Your task to perform on an android device: What's the weather like in Los Angeles? Image 0: 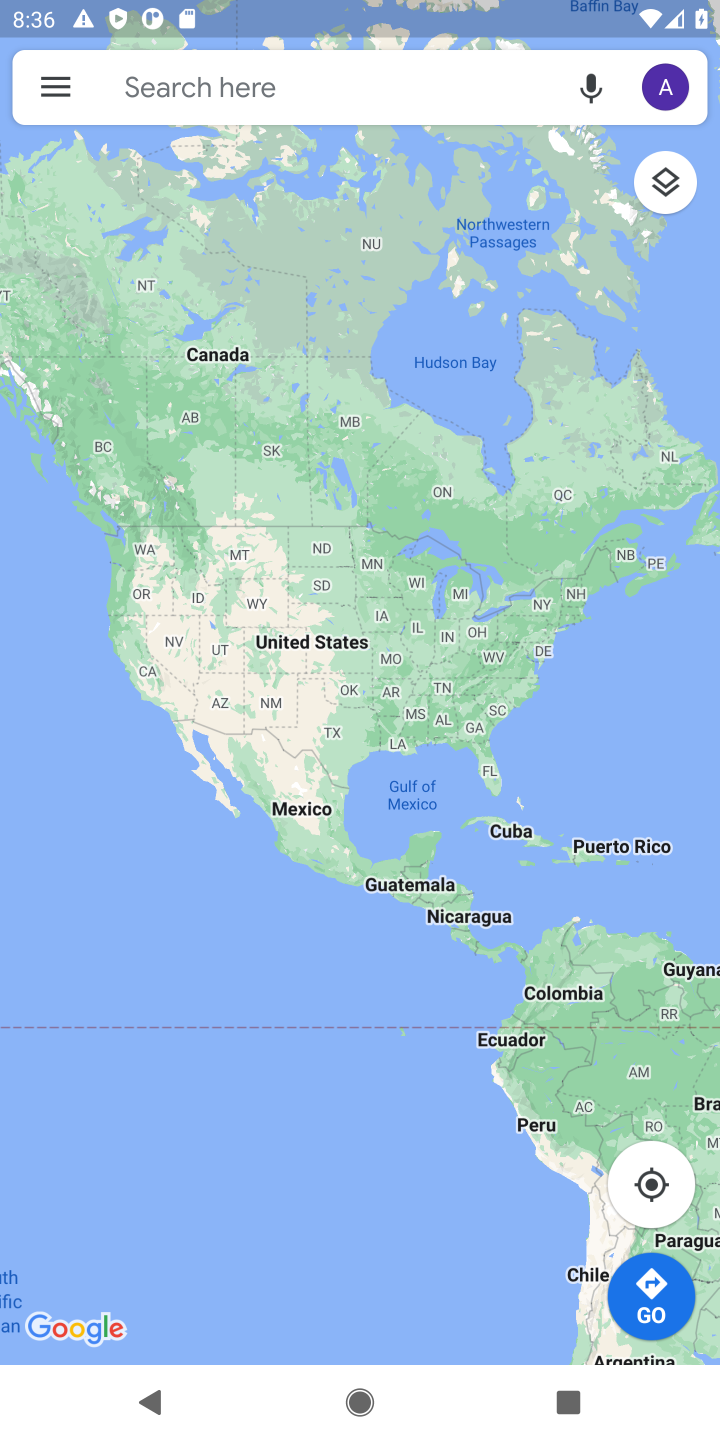
Step 0: press home button
Your task to perform on an android device: What's the weather like in Los Angeles? Image 1: 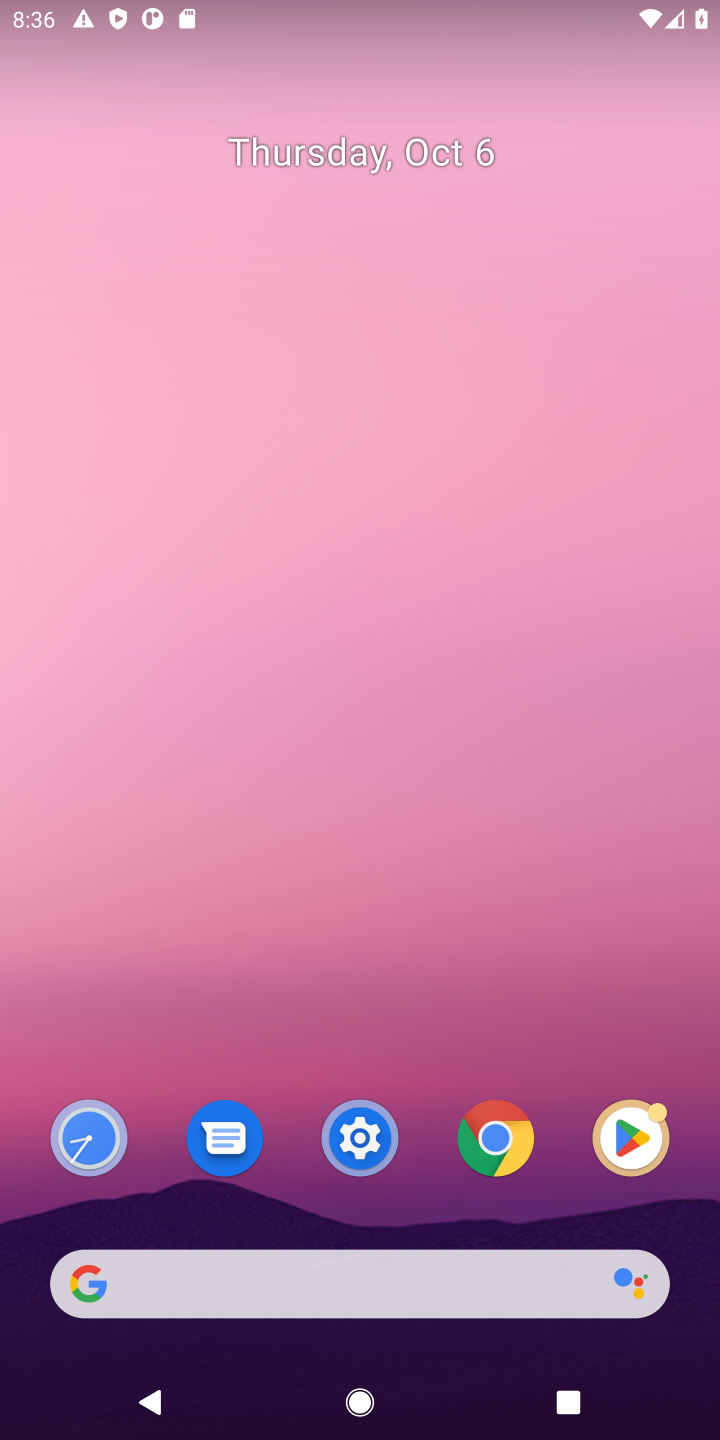
Step 1: click (371, 1265)
Your task to perform on an android device: What's the weather like in Los Angeles? Image 2: 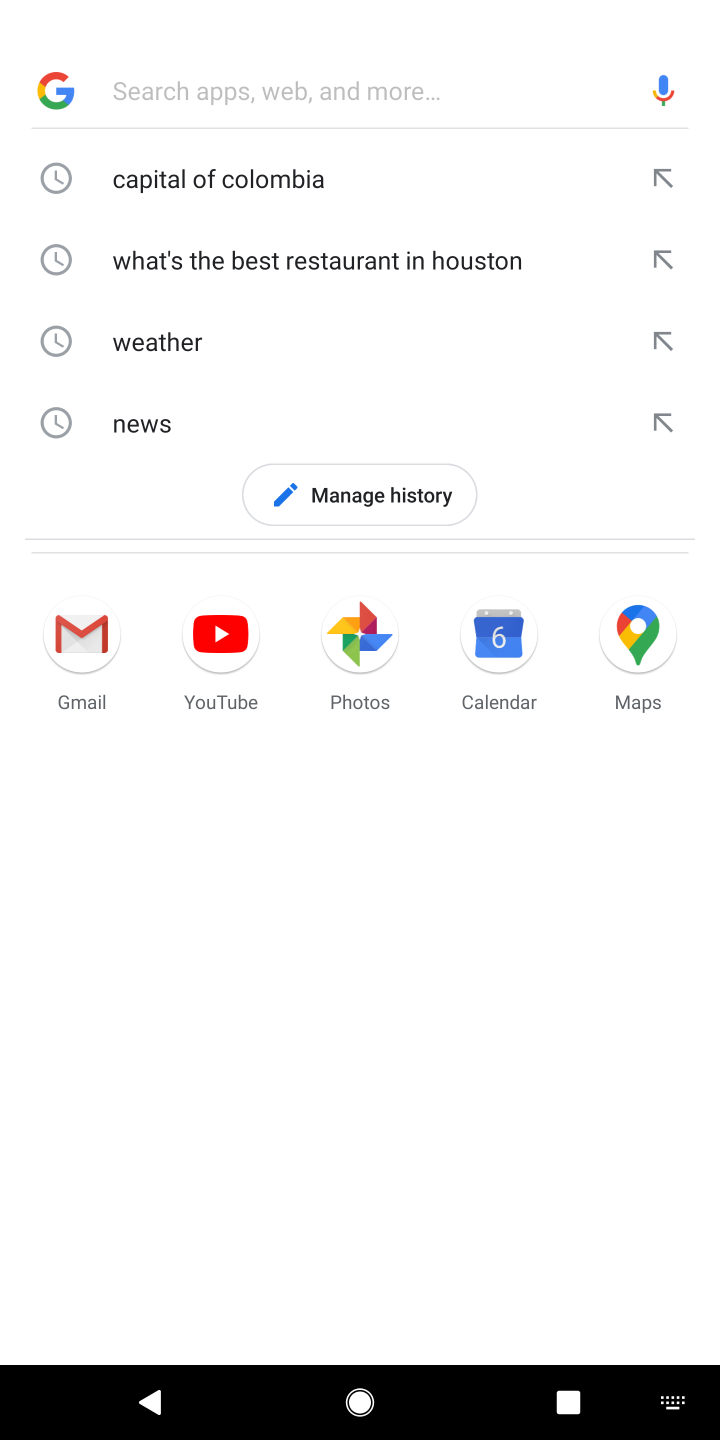
Step 2: type "What's the weather like in Los Angeles?"
Your task to perform on an android device: What's the weather like in Los Angeles? Image 3: 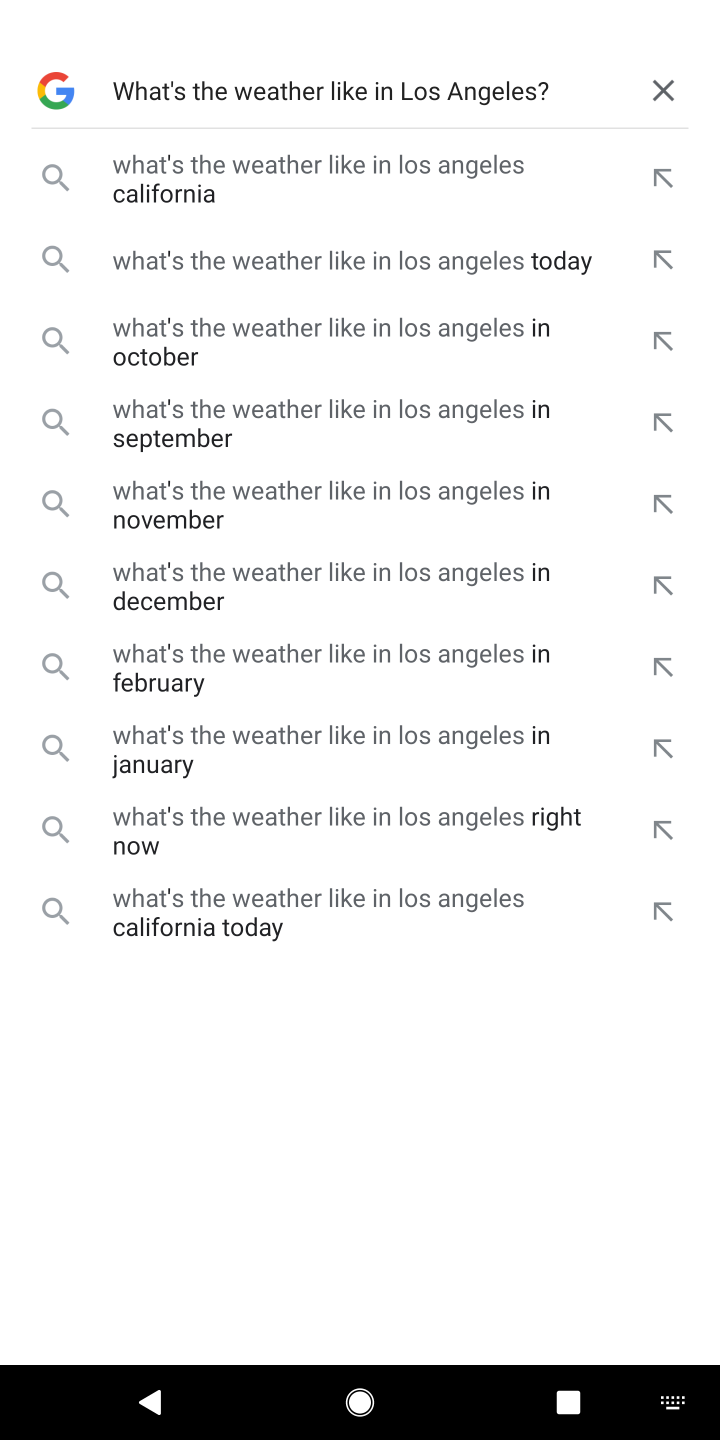
Step 3: click (281, 931)
Your task to perform on an android device: What's the weather like in Los Angeles? Image 4: 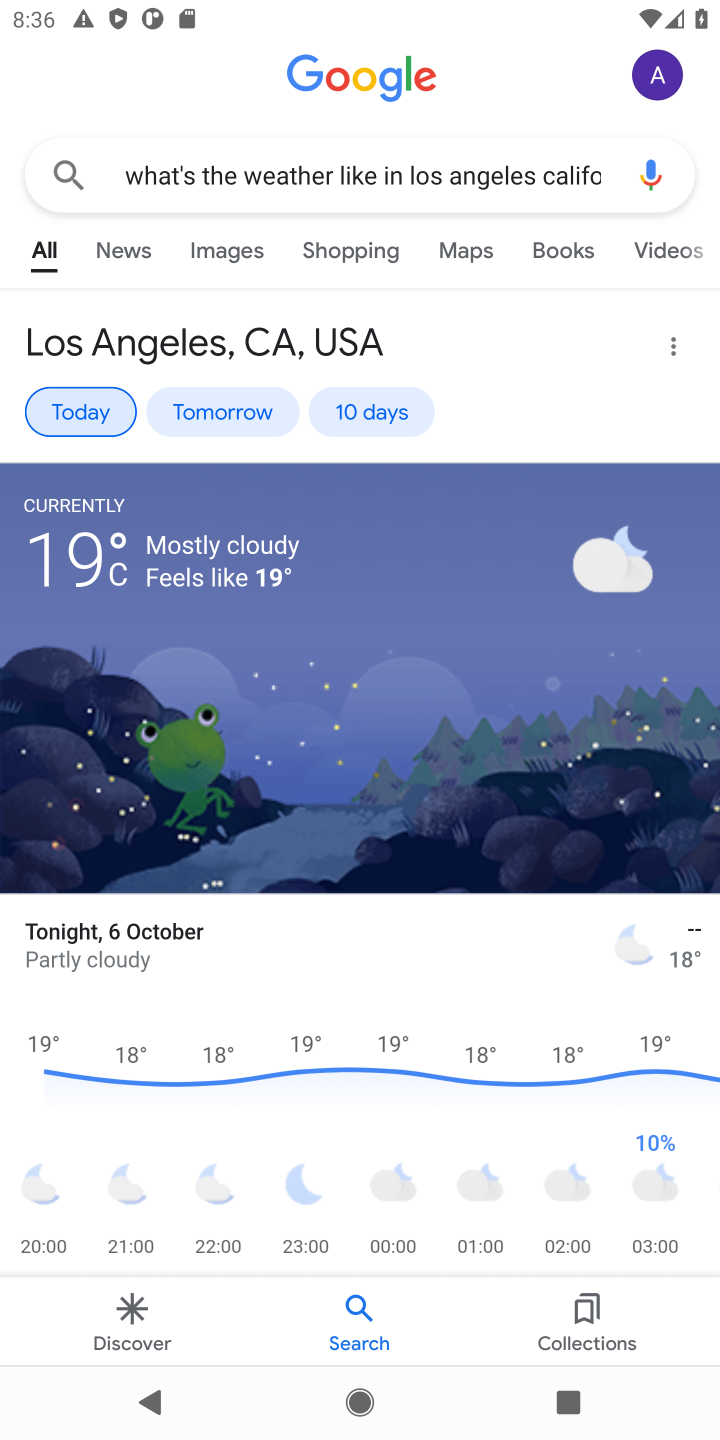
Step 4: task complete